Your task to perform on an android device: Search for the best books on Goodreads. Image 0: 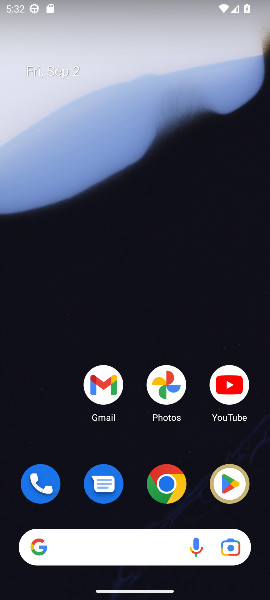
Step 0: click (165, 484)
Your task to perform on an android device: Search for the best books on Goodreads. Image 1: 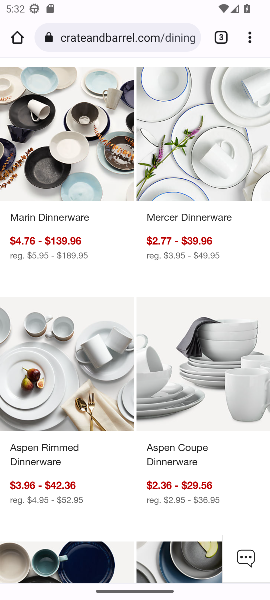
Step 1: click (150, 36)
Your task to perform on an android device: Search for the best books on Goodreads. Image 2: 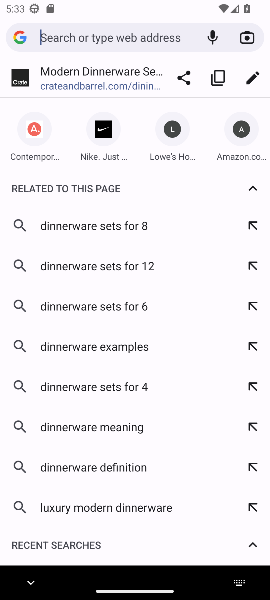
Step 2: type "Goodreads"
Your task to perform on an android device: Search for the best books on Goodreads. Image 3: 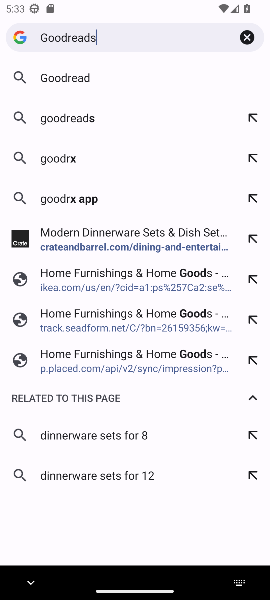
Step 3: press enter
Your task to perform on an android device: Search for the best books on Goodreads. Image 4: 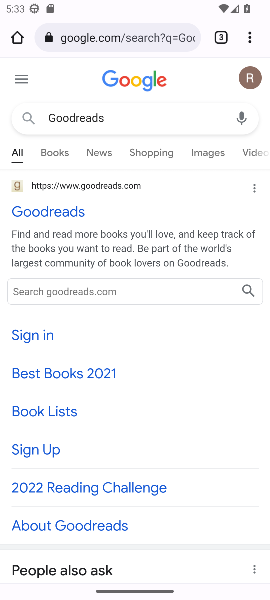
Step 4: click (78, 211)
Your task to perform on an android device: Search for the best books on Goodreads. Image 5: 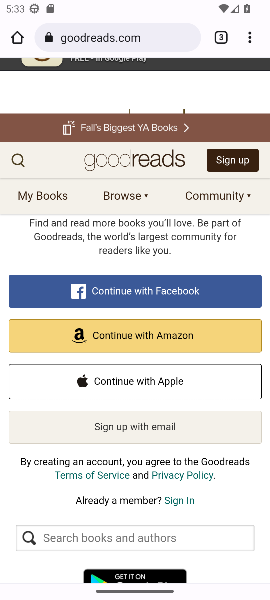
Step 5: drag from (171, 181) to (193, 431)
Your task to perform on an android device: Search for the best books on Goodreads. Image 6: 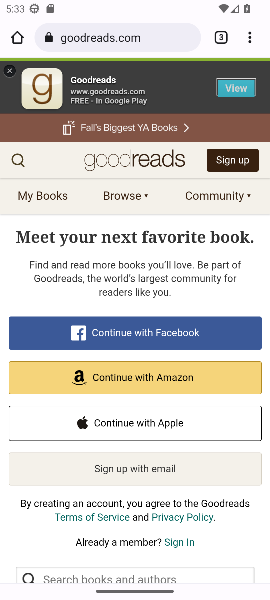
Step 6: drag from (80, 518) to (116, 384)
Your task to perform on an android device: Search for the best books on Goodreads. Image 7: 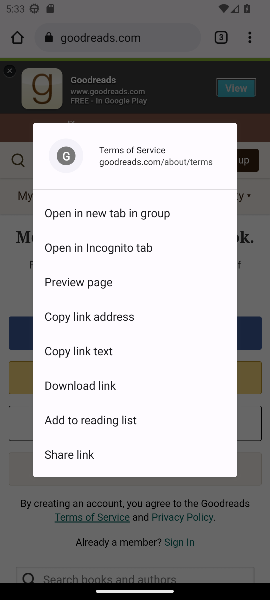
Step 7: click (237, 543)
Your task to perform on an android device: Search for the best books on Goodreads. Image 8: 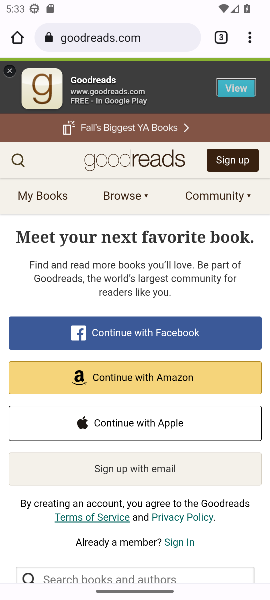
Step 8: drag from (155, 415) to (173, 298)
Your task to perform on an android device: Search for the best books on Goodreads. Image 9: 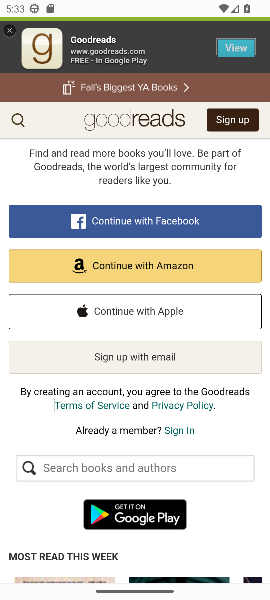
Step 9: click (17, 119)
Your task to perform on an android device: Search for the best books on Goodreads. Image 10: 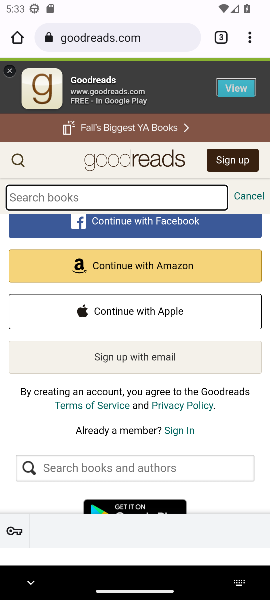
Step 10: type "best books"
Your task to perform on an android device: Search for the best books on Goodreads. Image 11: 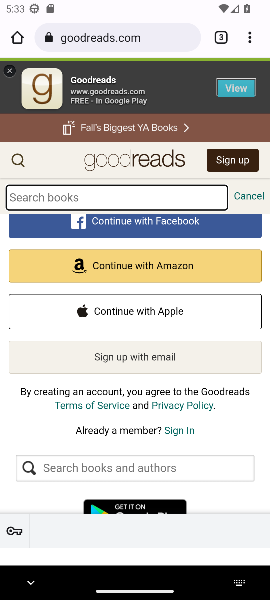
Step 11: press enter
Your task to perform on an android device: Search for the best books on Goodreads. Image 12: 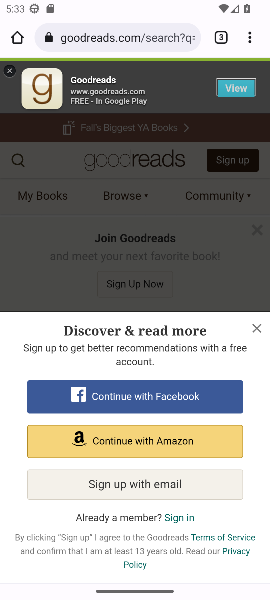
Step 12: click (257, 324)
Your task to perform on an android device: Search for the best books on Goodreads. Image 13: 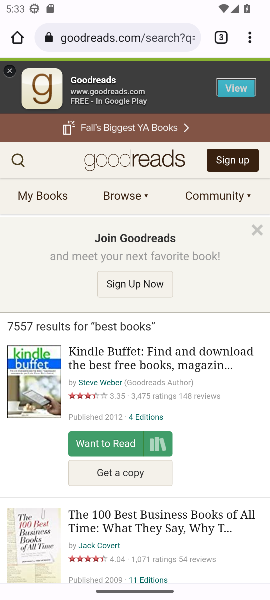
Step 13: task complete